Your task to perform on an android device: set the stopwatch Image 0: 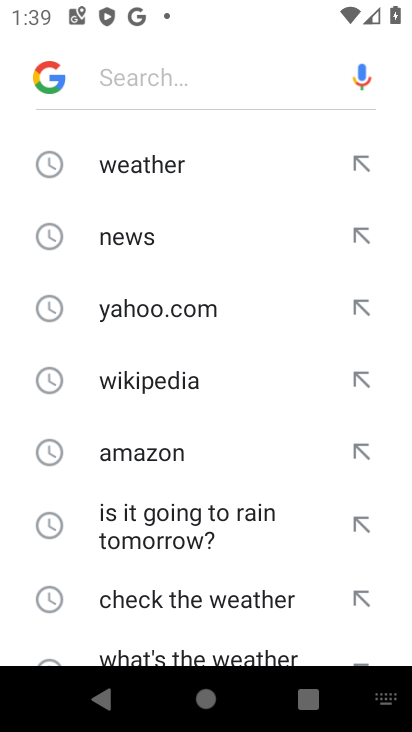
Step 0: press home button
Your task to perform on an android device: set the stopwatch Image 1: 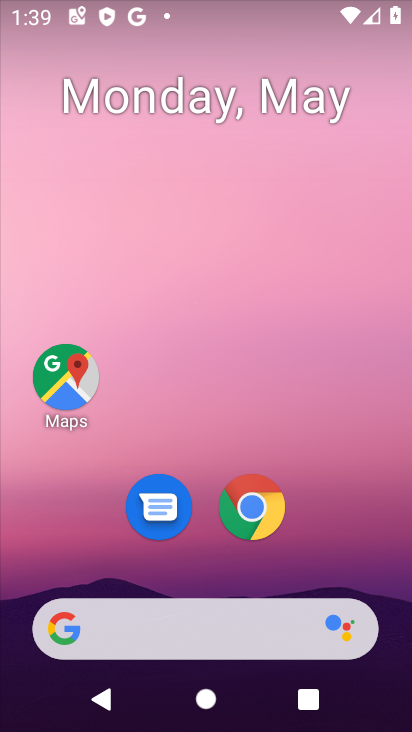
Step 1: drag from (377, 554) to (308, 173)
Your task to perform on an android device: set the stopwatch Image 2: 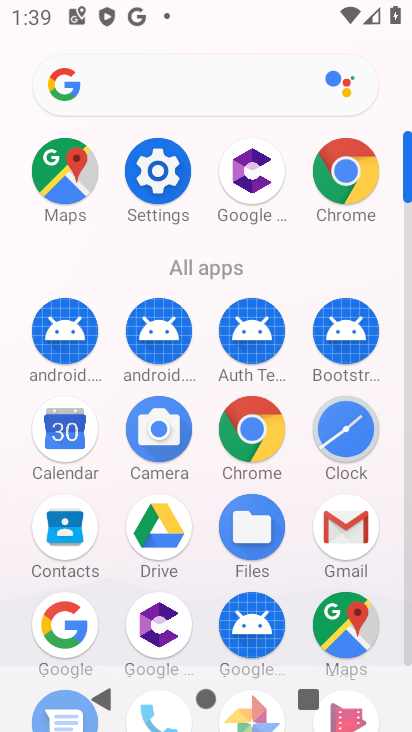
Step 2: drag from (311, 550) to (292, 234)
Your task to perform on an android device: set the stopwatch Image 3: 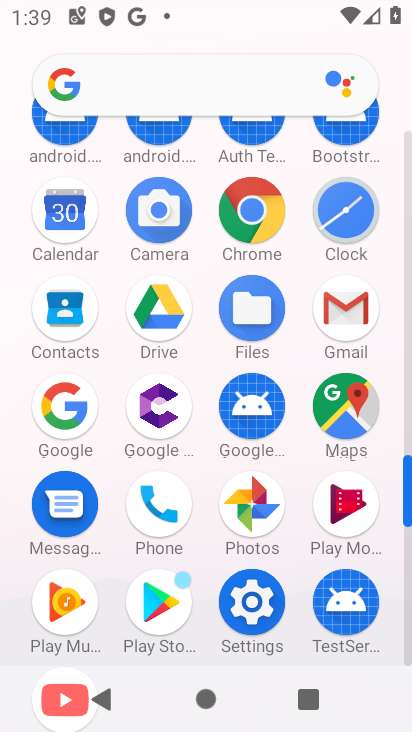
Step 3: click (366, 242)
Your task to perform on an android device: set the stopwatch Image 4: 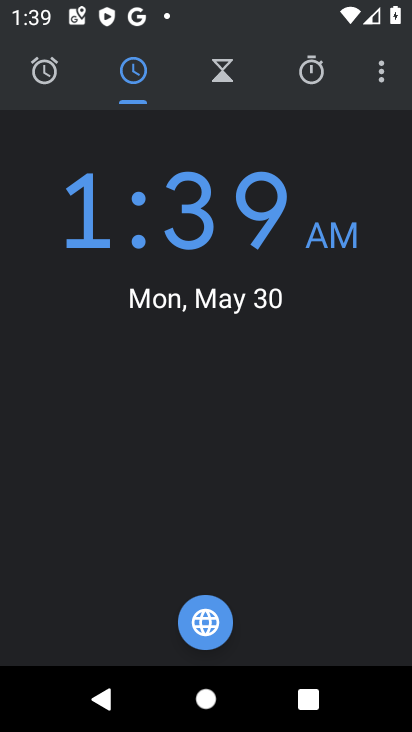
Step 4: click (323, 77)
Your task to perform on an android device: set the stopwatch Image 5: 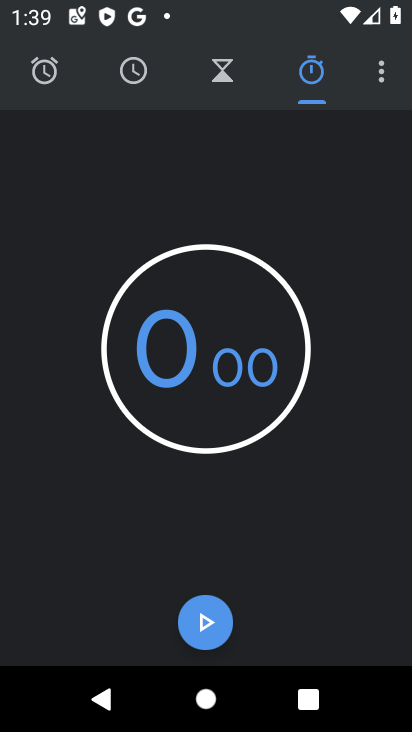
Step 5: click (201, 620)
Your task to perform on an android device: set the stopwatch Image 6: 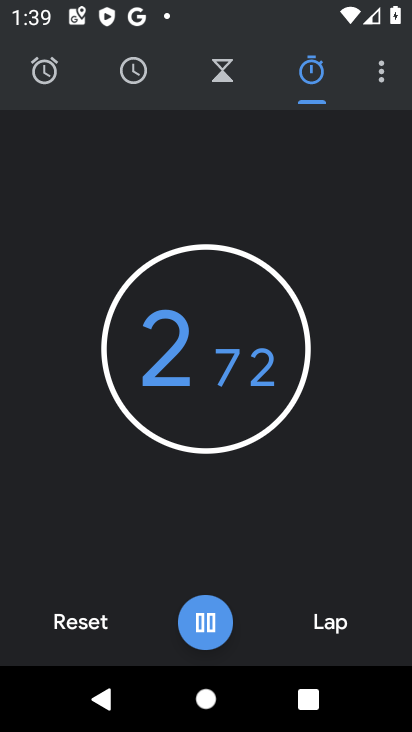
Step 6: click (201, 620)
Your task to perform on an android device: set the stopwatch Image 7: 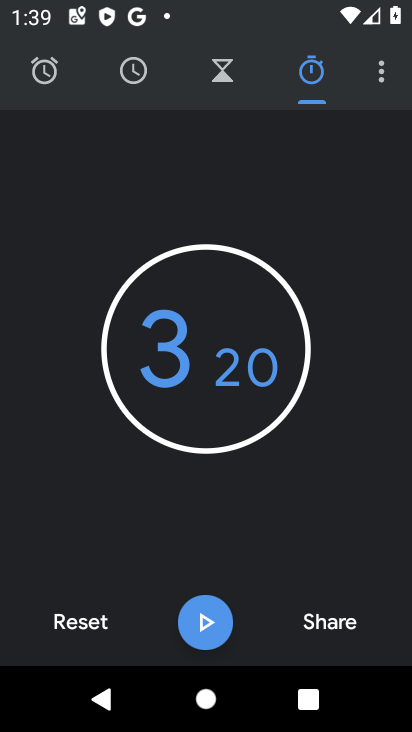
Step 7: task complete